Your task to perform on an android device: Show me the alarms in the clock app Image 0: 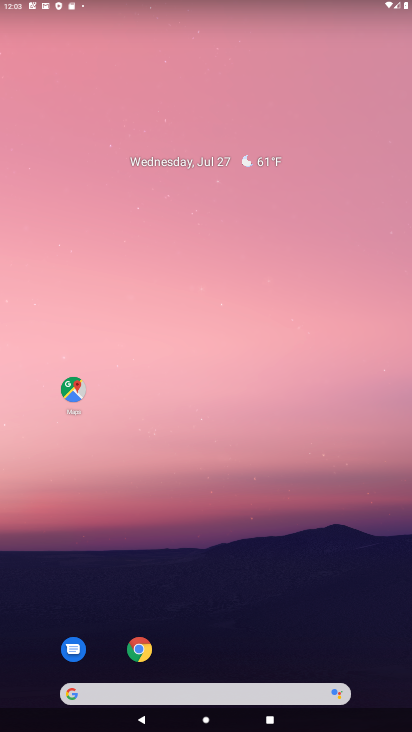
Step 0: drag from (179, 686) to (156, 294)
Your task to perform on an android device: Show me the alarms in the clock app Image 1: 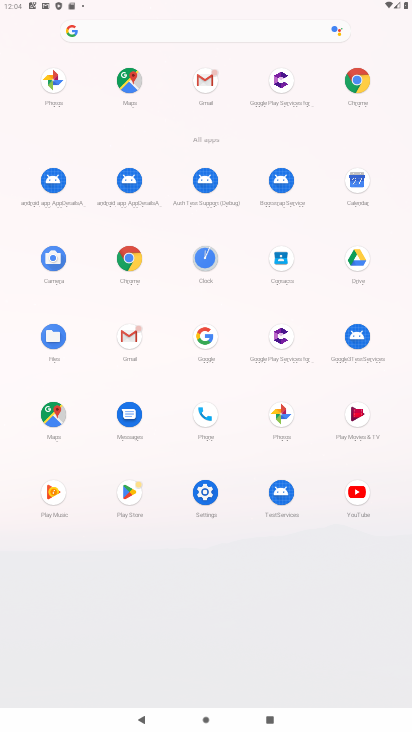
Step 1: click (199, 262)
Your task to perform on an android device: Show me the alarms in the clock app Image 2: 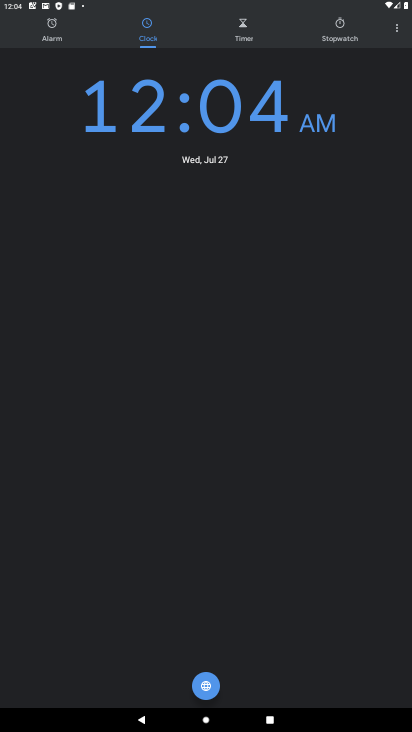
Step 2: click (61, 31)
Your task to perform on an android device: Show me the alarms in the clock app Image 3: 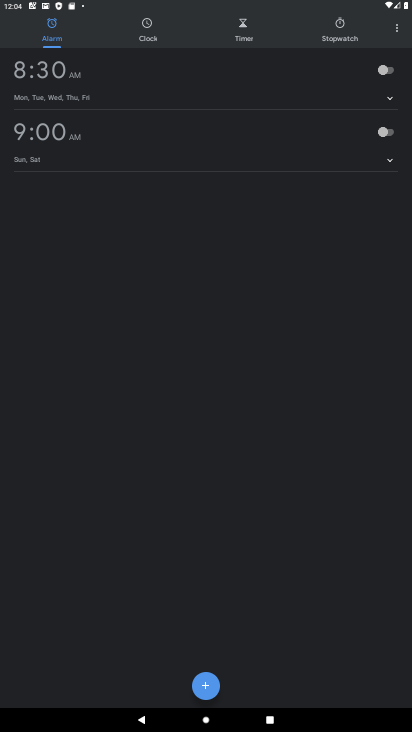
Step 3: task complete